Your task to perform on an android device: Go to Google Image 0: 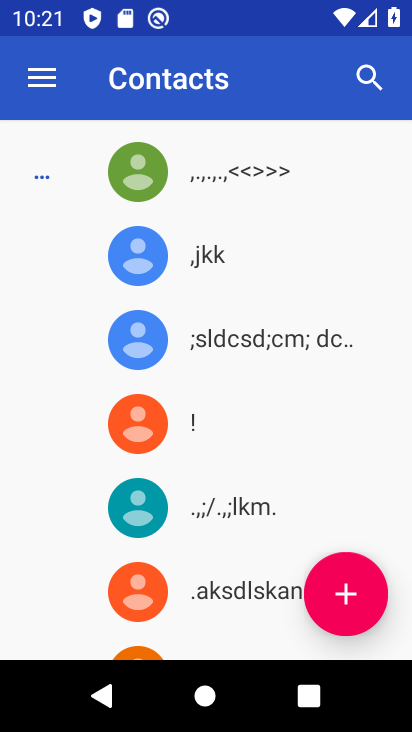
Step 0: click (284, 709)
Your task to perform on an android device: Go to Google Image 1: 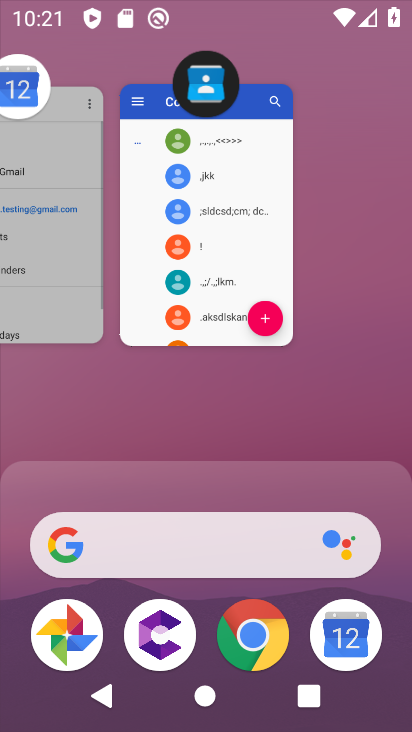
Step 1: press home button
Your task to perform on an android device: Go to Google Image 2: 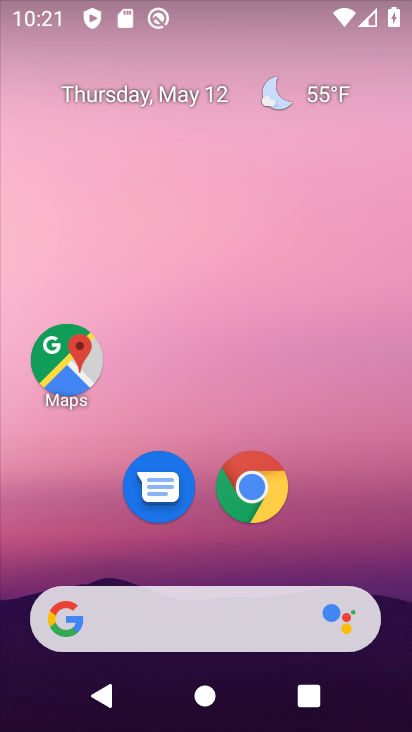
Step 2: drag from (360, 564) to (340, 2)
Your task to perform on an android device: Go to Google Image 3: 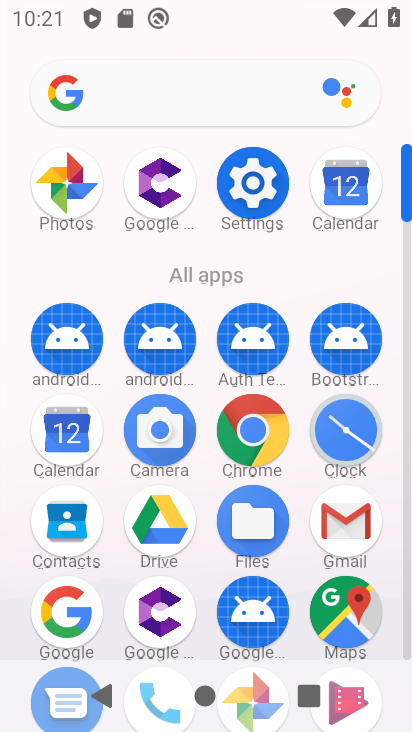
Step 3: click (63, 619)
Your task to perform on an android device: Go to Google Image 4: 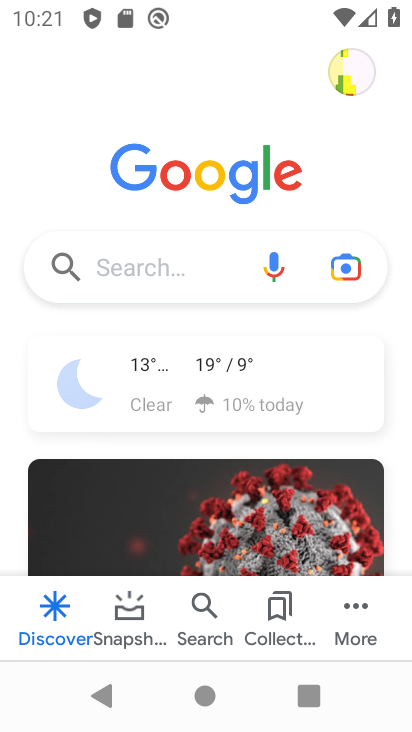
Step 4: task complete